Your task to perform on an android device: turn off data saver in the chrome app Image 0: 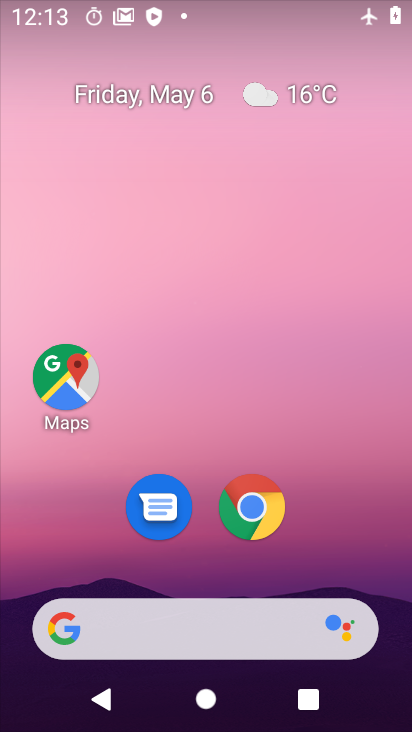
Step 0: click (257, 505)
Your task to perform on an android device: turn off data saver in the chrome app Image 1: 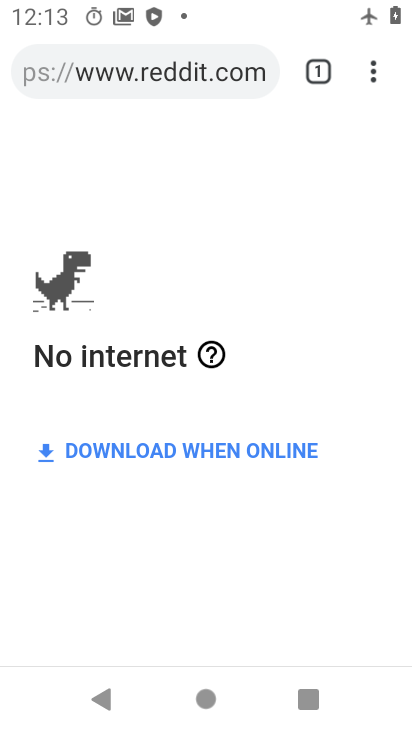
Step 1: click (372, 80)
Your task to perform on an android device: turn off data saver in the chrome app Image 2: 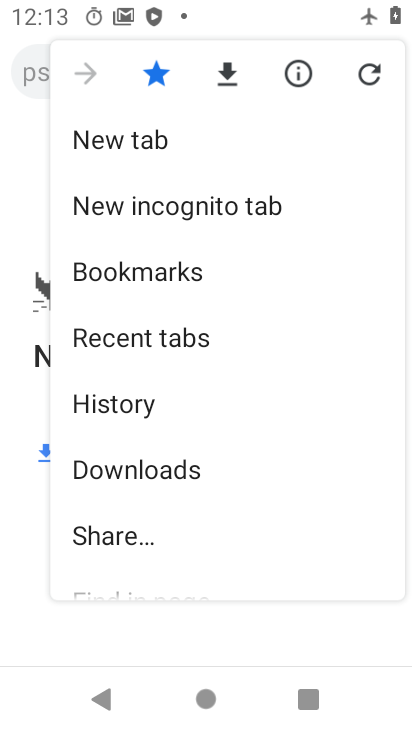
Step 2: drag from (147, 571) to (177, 132)
Your task to perform on an android device: turn off data saver in the chrome app Image 3: 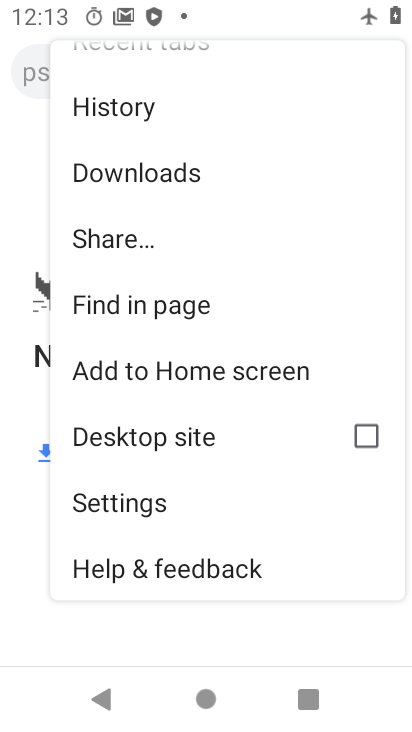
Step 3: click (138, 495)
Your task to perform on an android device: turn off data saver in the chrome app Image 4: 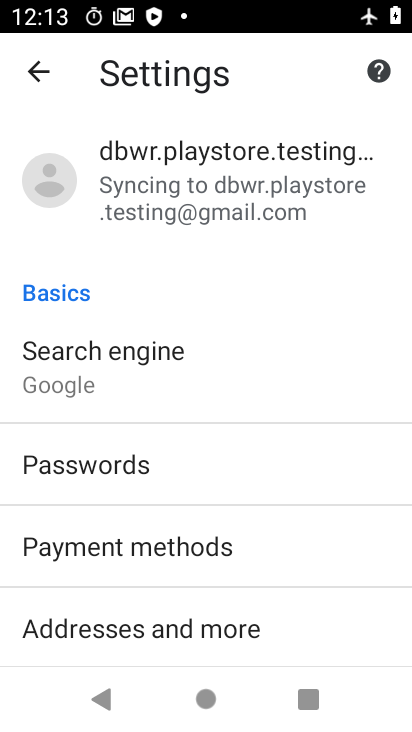
Step 4: drag from (135, 657) to (128, 310)
Your task to perform on an android device: turn off data saver in the chrome app Image 5: 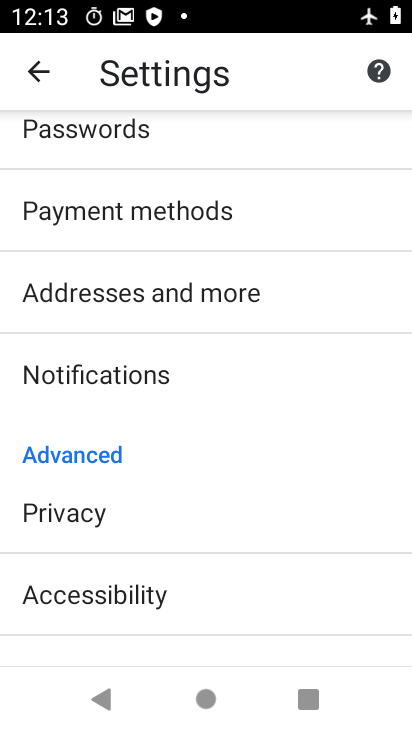
Step 5: drag from (135, 618) to (136, 266)
Your task to perform on an android device: turn off data saver in the chrome app Image 6: 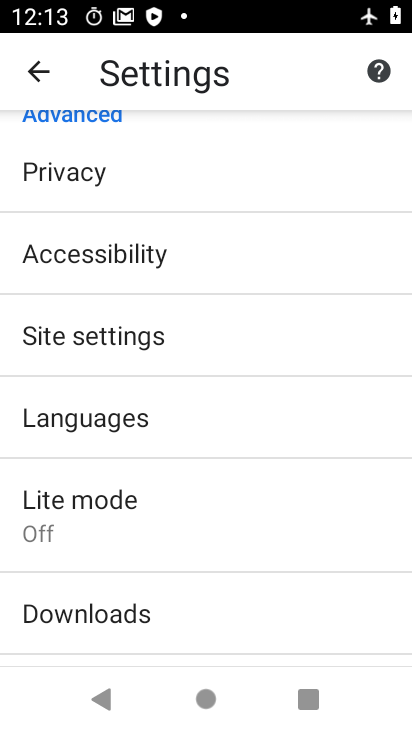
Step 6: click (102, 503)
Your task to perform on an android device: turn off data saver in the chrome app Image 7: 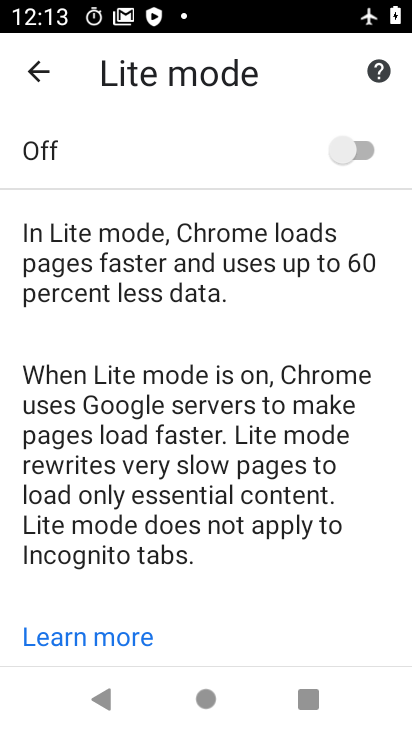
Step 7: task complete